Your task to perform on an android device: add a label to a message in the gmail app Image 0: 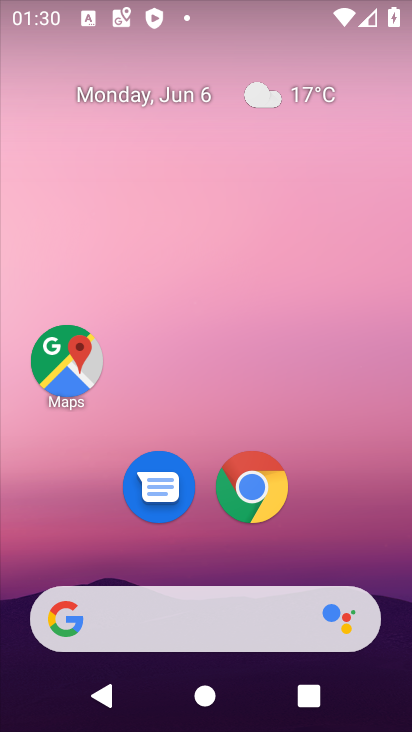
Step 0: drag from (394, 616) to (285, 106)
Your task to perform on an android device: add a label to a message in the gmail app Image 1: 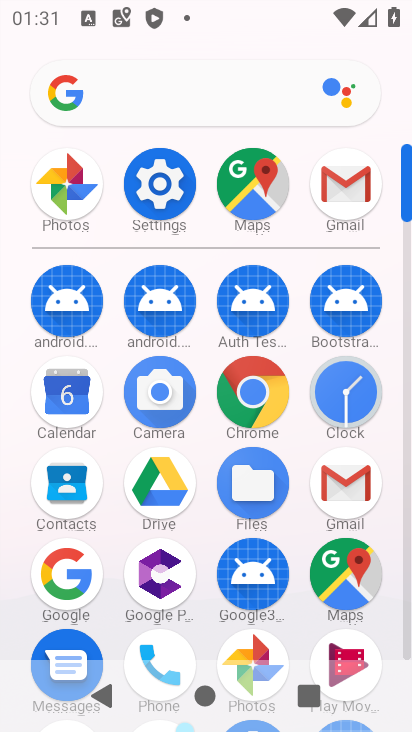
Step 1: click (346, 479)
Your task to perform on an android device: add a label to a message in the gmail app Image 2: 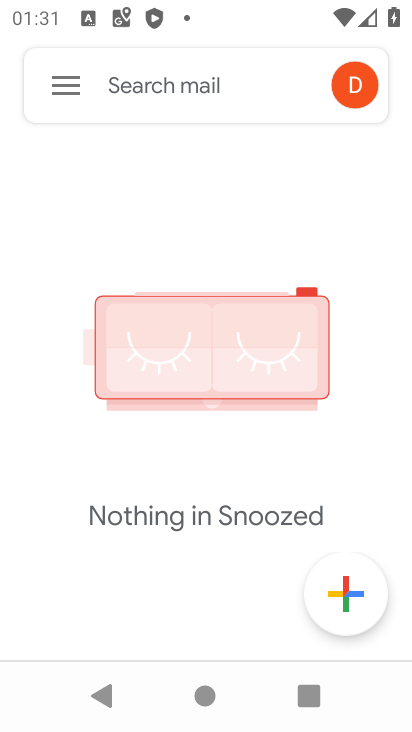
Step 2: click (64, 76)
Your task to perform on an android device: add a label to a message in the gmail app Image 3: 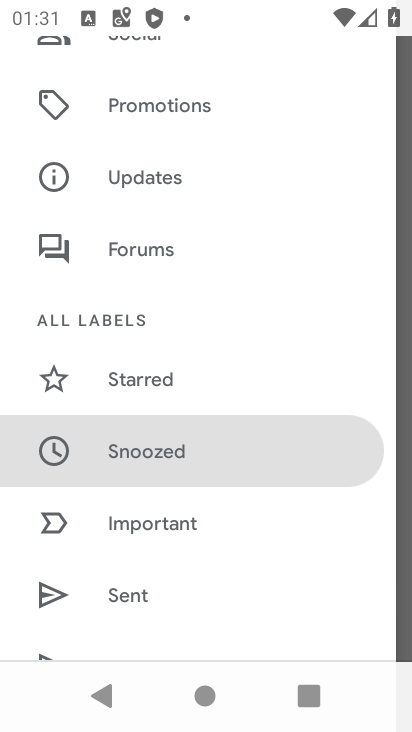
Step 3: drag from (249, 592) to (206, 142)
Your task to perform on an android device: add a label to a message in the gmail app Image 4: 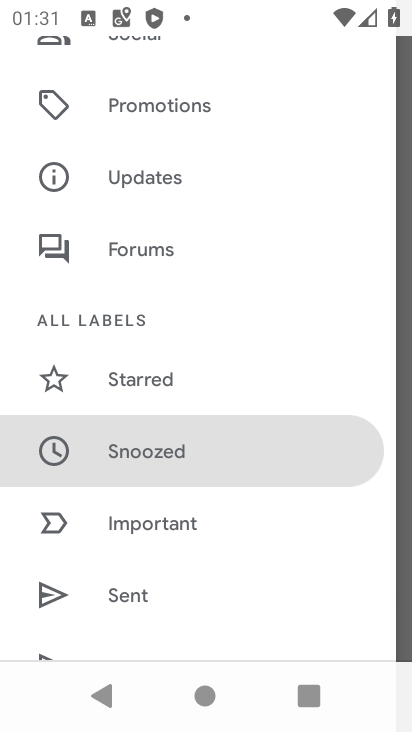
Step 4: drag from (216, 618) to (142, 68)
Your task to perform on an android device: add a label to a message in the gmail app Image 5: 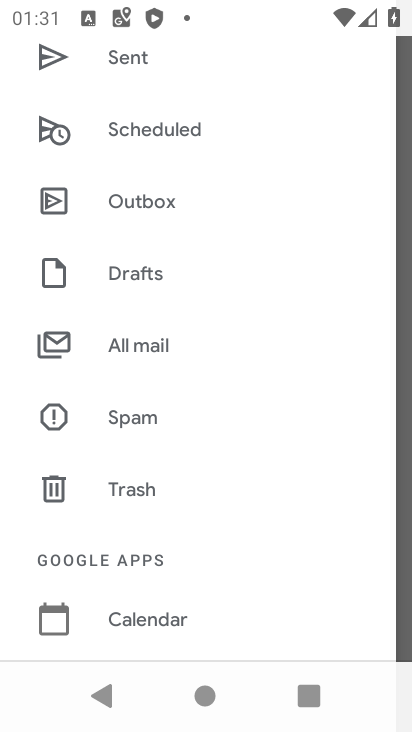
Step 5: drag from (217, 635) to (234, 198)
Your task to perform on an android device: add a label to a message in the gmail app Image 6: 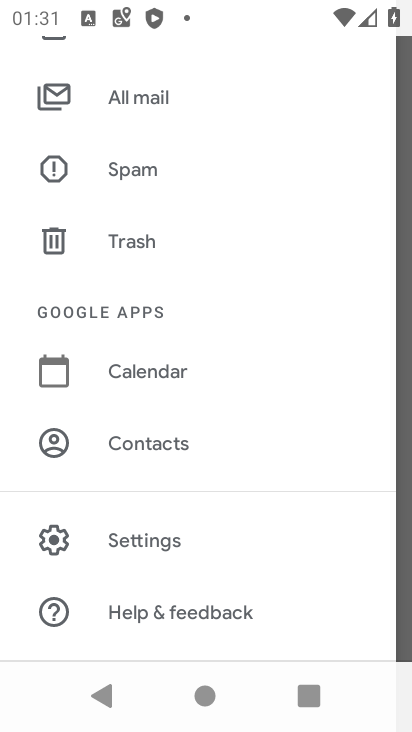
Step 6: click (174, 529)
Your task to perform on an android device: add a label to a message in the gmail app Image 7: 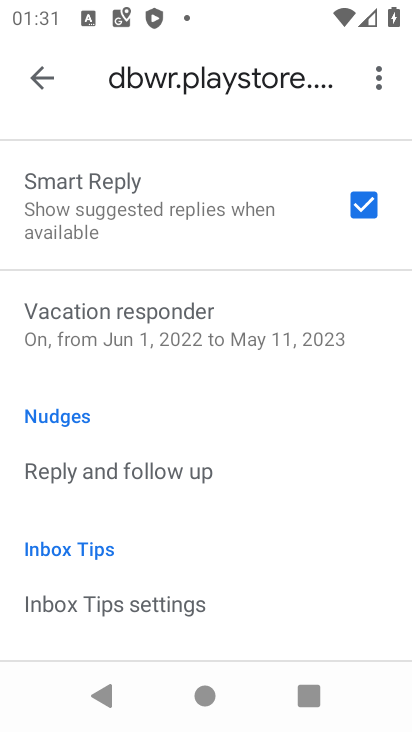
Step 7: drag from (300, 212) to (301, 524)
Your task to perform on an android device: add a label to a message in the gmail app Image 8: 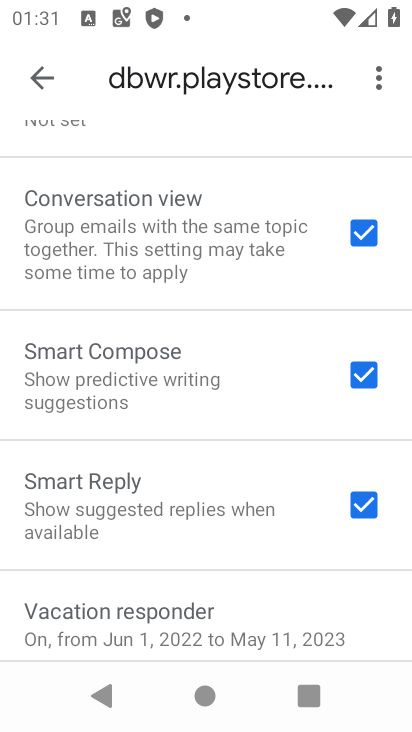
Step 8: press back button
Your task to perform on an android device: add a label to a message in the gmail app Image 9: 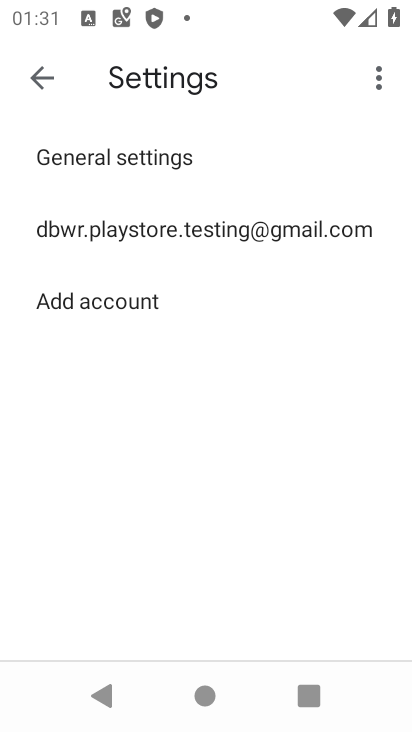
Step 9: press back button
Your task to perform on an android device: add a label to a message in the gmail app Image 10: 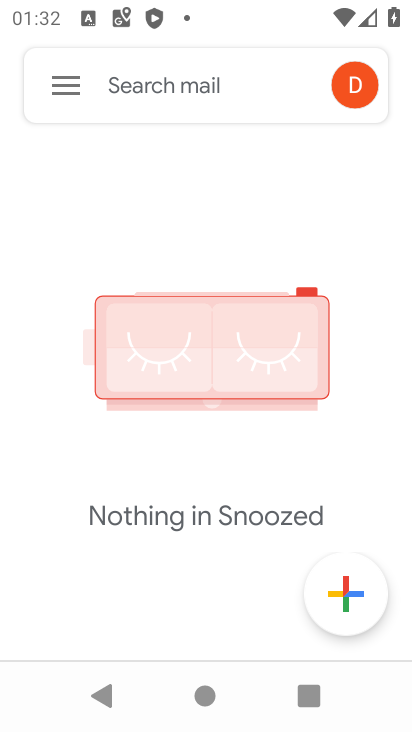
Step 10: click (75, 85)
Your task to perform on an android device: add a label to a message in the gmail app Image 11: 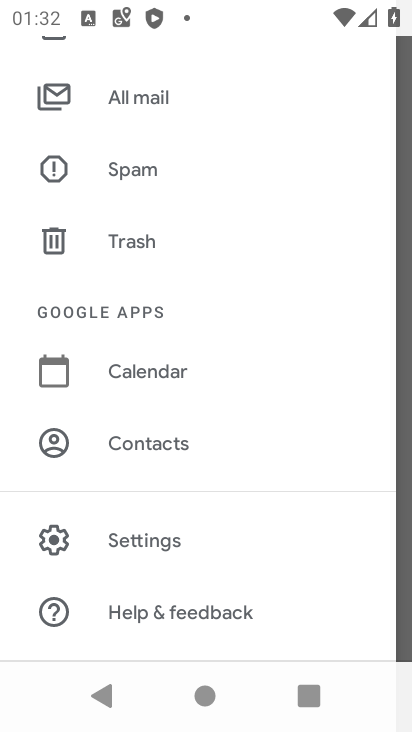
Step 11: click (147, 95)
Your task to perform on an android device: add a label to a message in the gmail app Image 12: 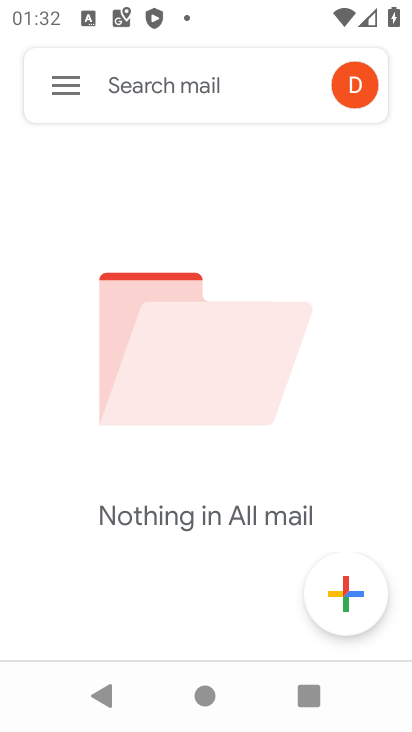
Step 12: task complete